Your task to perform on an android device: Show me the alarms in the clock app Image 0: 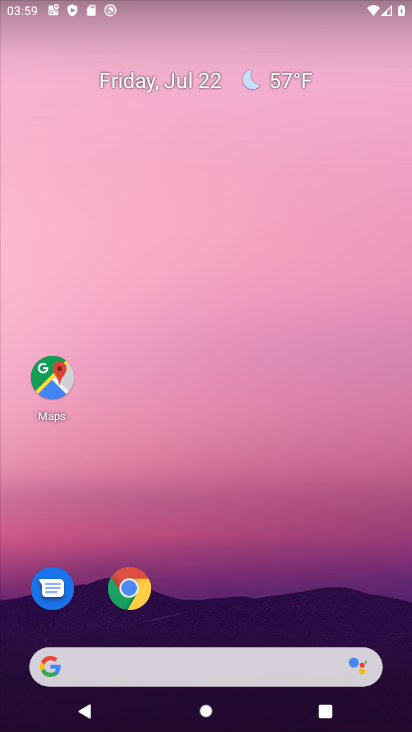
Step 0: drag from (186, 631) to (143, 8)
Your task to perform on an android device: Show me the alarms in the clock app Image 1: 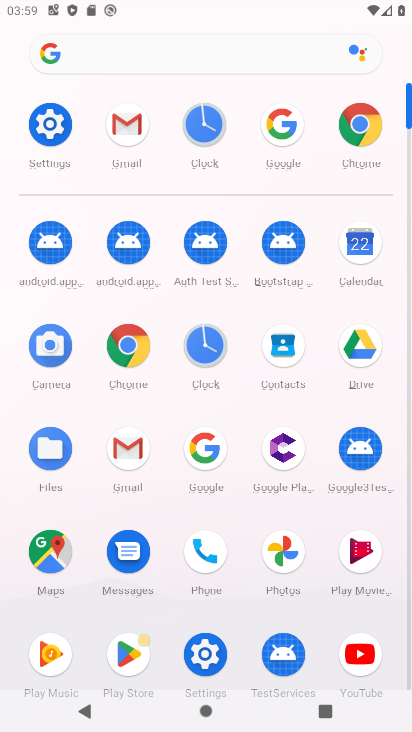
Step 1: click (202, 339)
Your task to perform on an android device: Show me the alarms in the clock app Image 2: 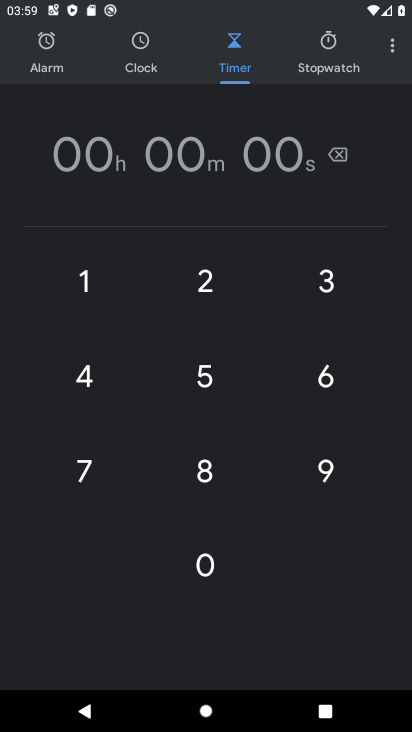
Step 2: click (53, 49)
Your task to perform on an android device: Show me the alarms in the clock app Image 3: 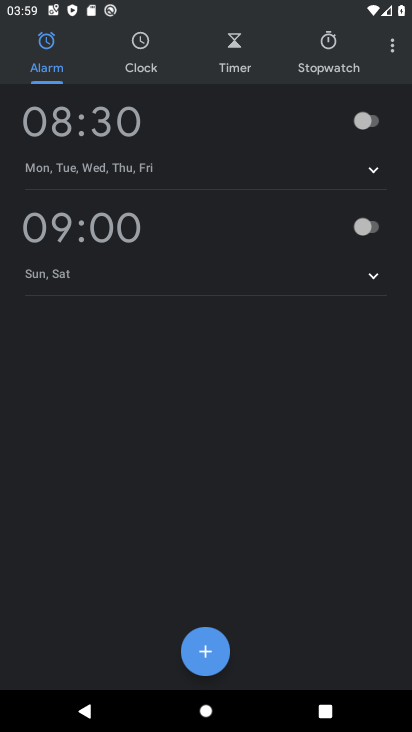
Step 3: task complete